Your task to perform on an android device: turn on notifications settings in the gmail app Image 0: 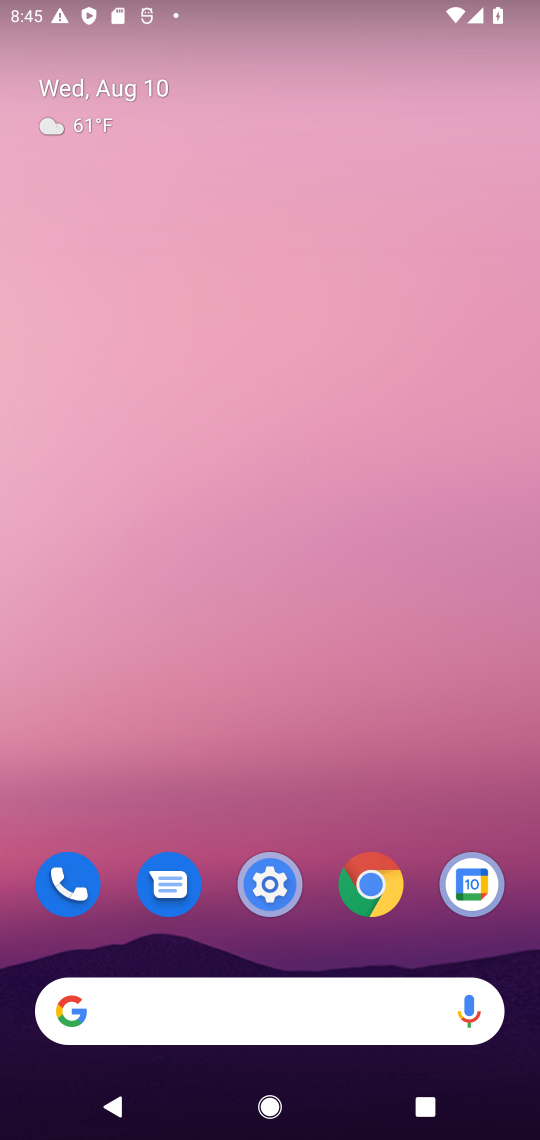
Step 0: drag from (42, 1043) to (531, 224)
Your task to perform on an android device: turn on notifications settings in the gmail app Image 1: 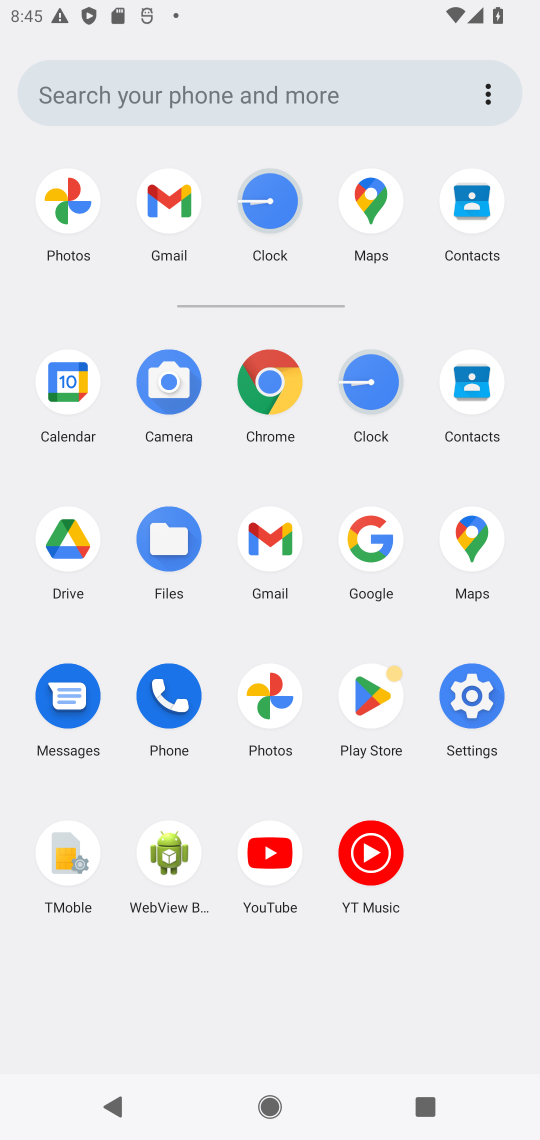
Step 1: click (271, 566)
Your task to perform on an android device: turn on notifications settings in the gmail app Image 2: 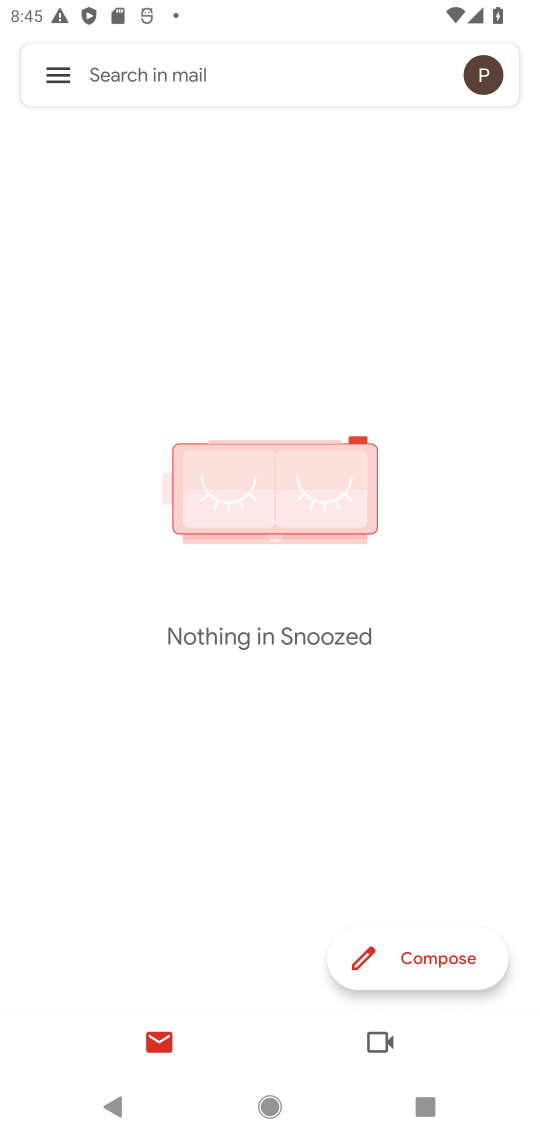
Step 2: click (61, 82)
Your task to perform on an android device: turn on notifications settings in the gmail app Image 3: 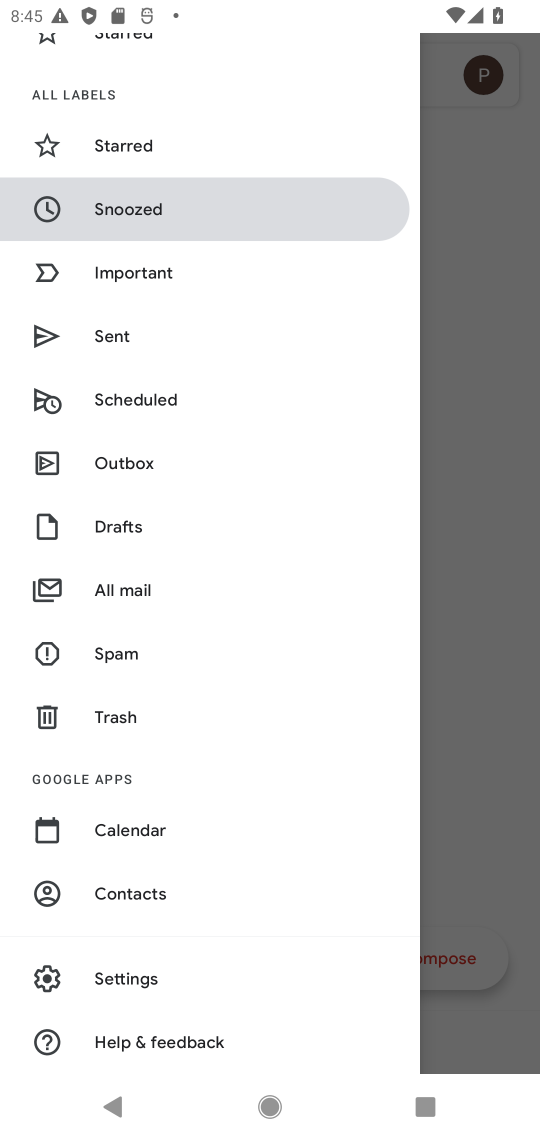
Step 3: click (151, 988)
Your task to perform on an android device: turn on notifications settings in the gmail app Image 4: 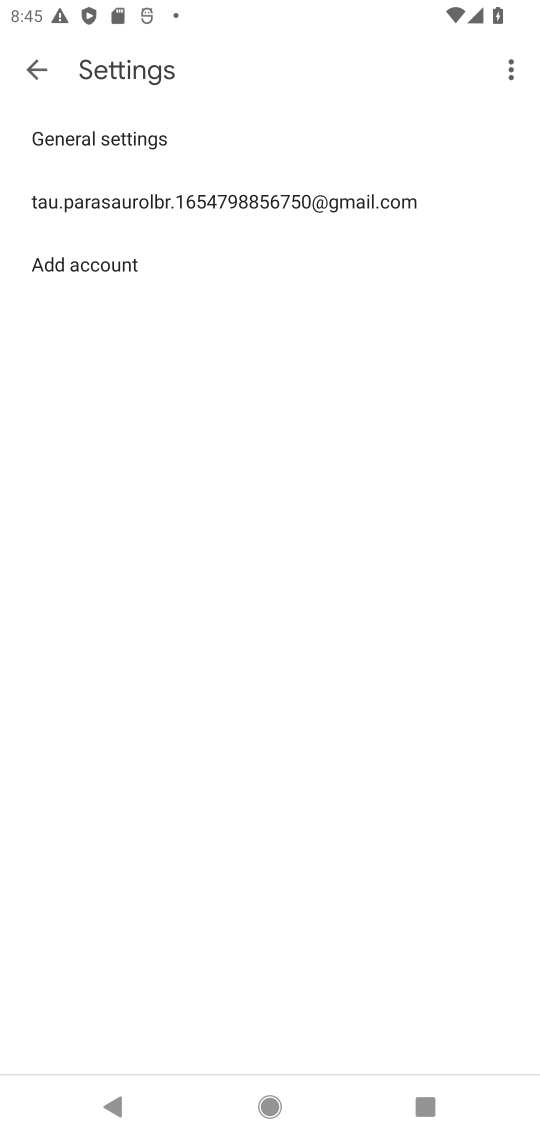
Step 4: click (196, 191)
Your task to perform on an android device: turn on notifications settings in the gmail app Image 5: 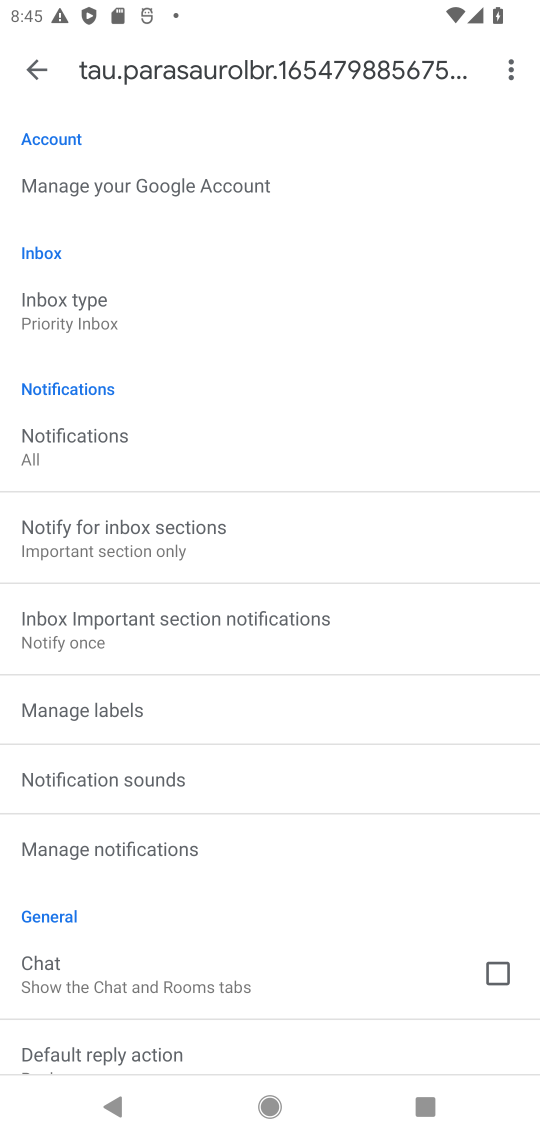
Step 5: click (120, 441)
Your task to perform on an android device: turn on notifications settings in the gmail app Image 6: 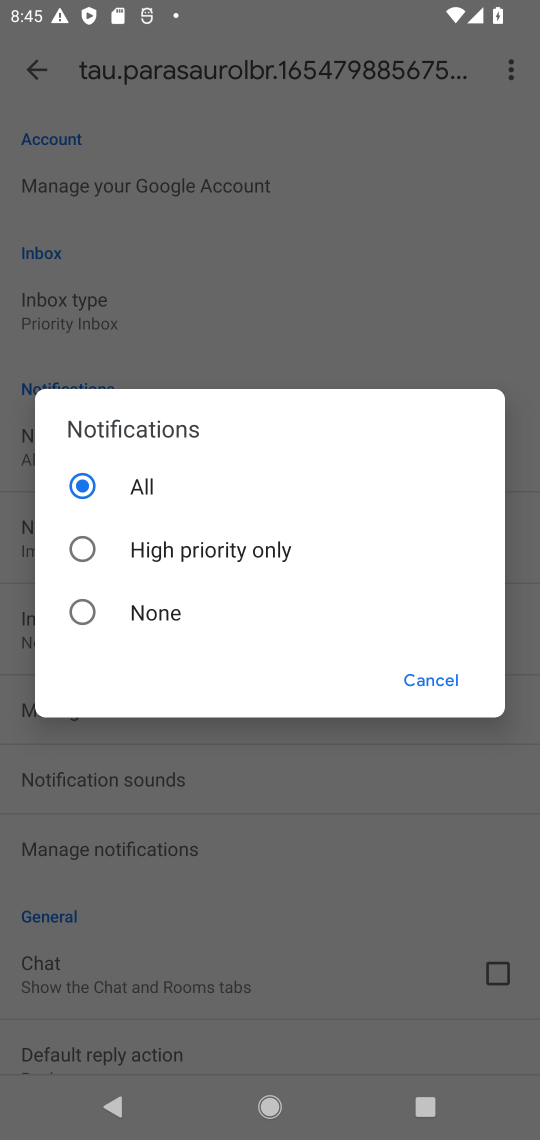
Step 6: task complete